Your task to perform on an android device: open chrome and create a bookmark for the current page Image 0: 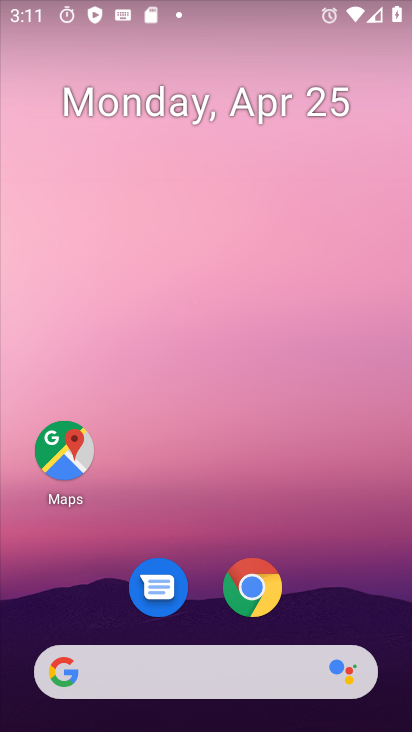
Step 0: drag from (324, 582) to (314, 125)
Your task to perform on an android device: open chrome and create a bookmark for the current page Image 1: 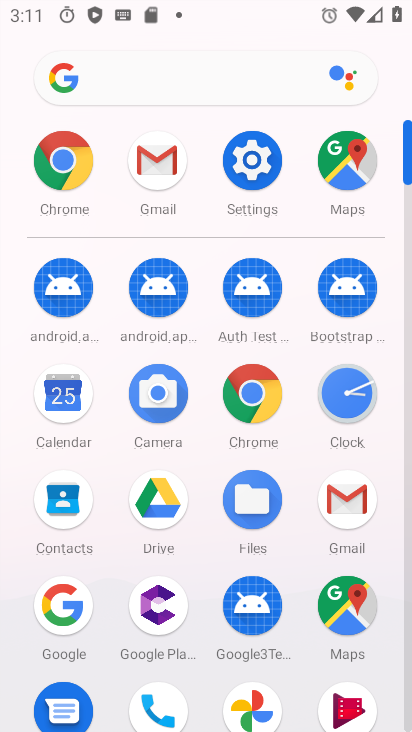
Step 1: click (261, 384)
Your task to perform on an android device: open chrome and create a bookmark for the current page Image 2: 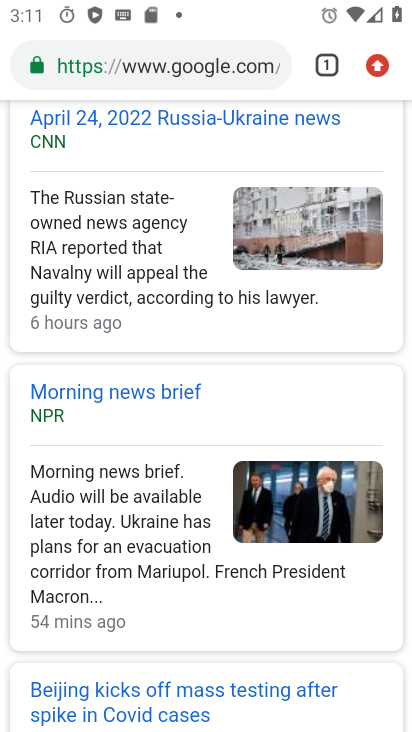
Step 2: task complete